Your task to perform on an android device: Open Chrome and go to settings Image 0: 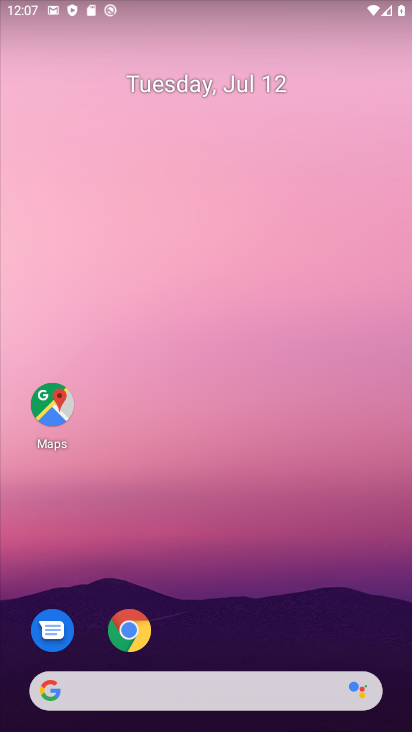
Step 0: click (143, 635)
Your task to perform on an android device: Open Chrome and go to settings Image 1: 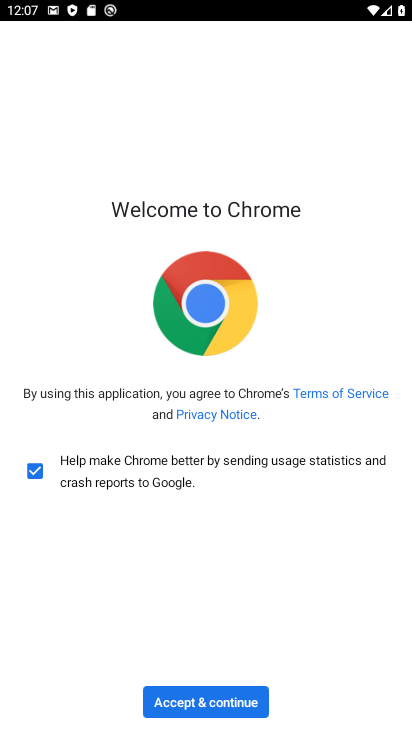
Step 1: click (204, 705)
Your task to perform on an android device: Open Chrome and go to settings Image 2: 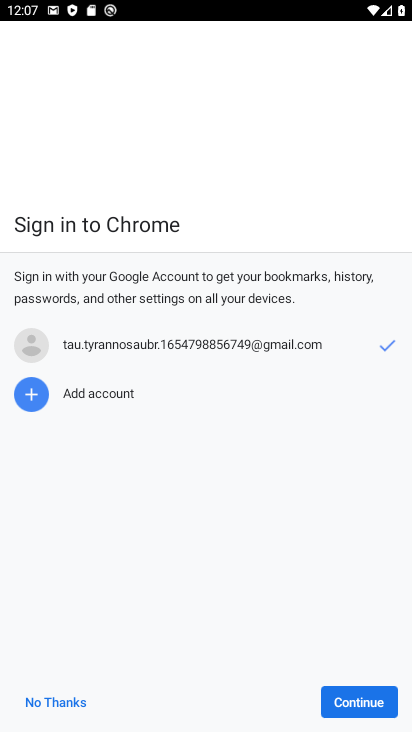
Step 2: click (358, 695)
Your task to perform on an android device: Open Chrome and go to settings Image 3: 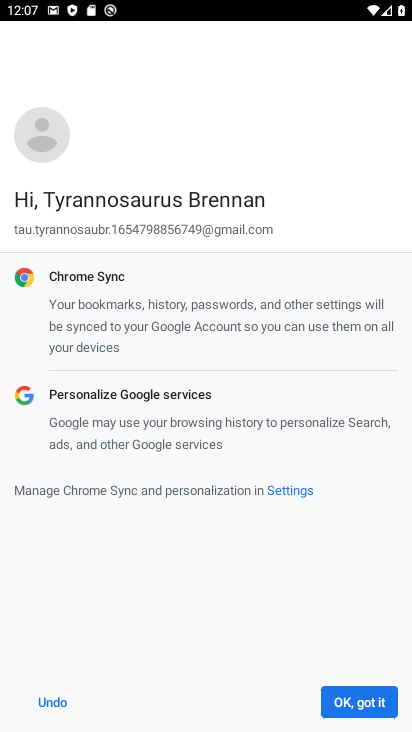
Step 3: click (350, 695)
Your task to perform on an android device: Open Chrome and go to settings Image 4: 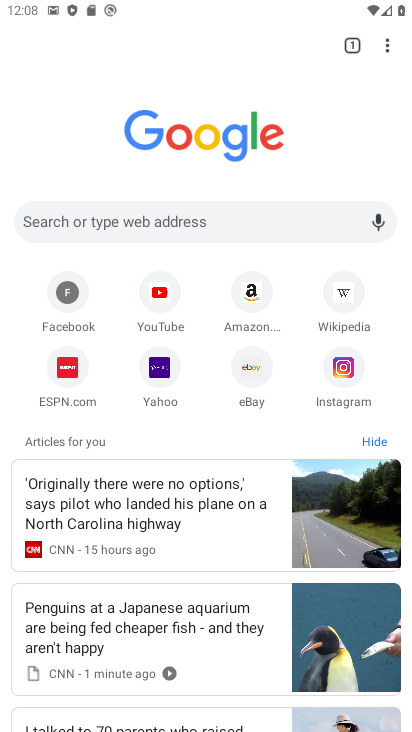
Step 4: click (383, 54)
Your task to perform on an android device: Open Chrome and go to settings Image 5: 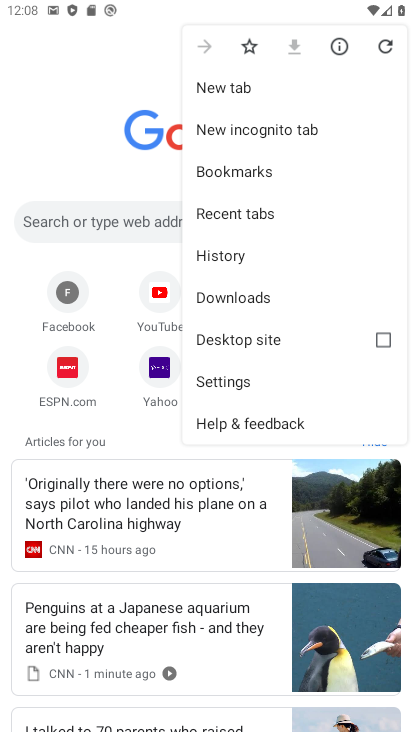
Step 5: click (231, 381)
Your task to perform on an android device: Open Chrome and go to settings Image 6: 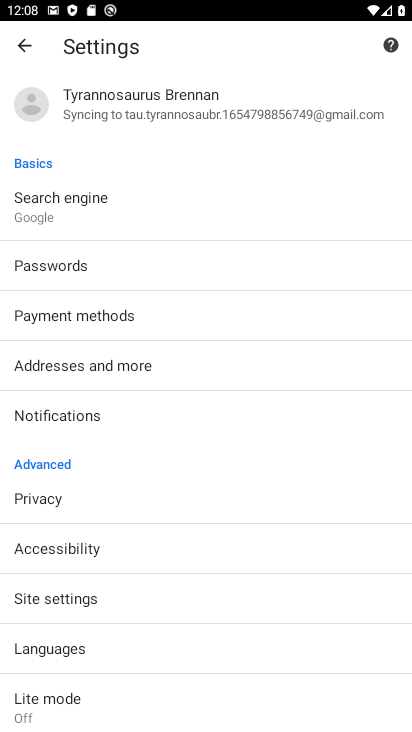
Step 6: task complete